Your task to perform on an android device: check battery use Image 0: 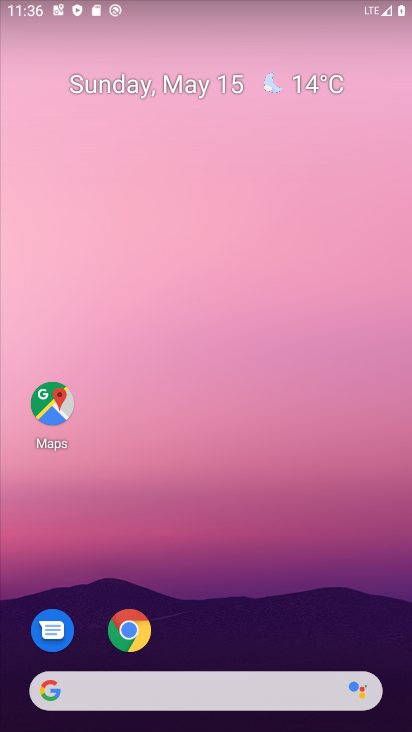
Step 0: press home button
Your task to perform on an android device: check battery use Image 1: 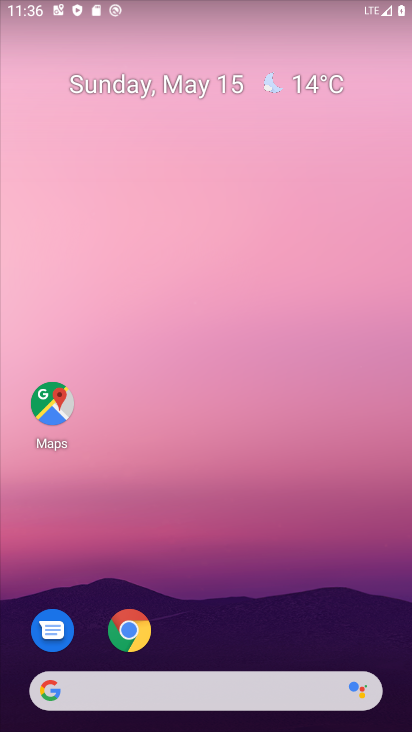
Step 1: drag from (85, 538) to (317, 148)
Your task to perform on an android device: check battery use Image 2: 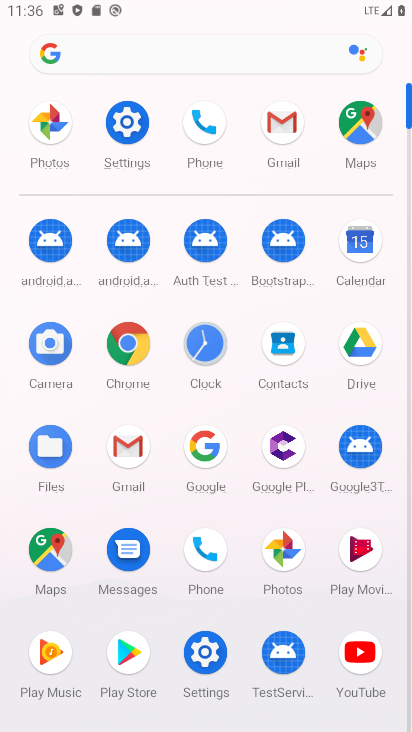
Step 2: click (127, 112)
Your task to perform on an android device: check battery use Image 3: 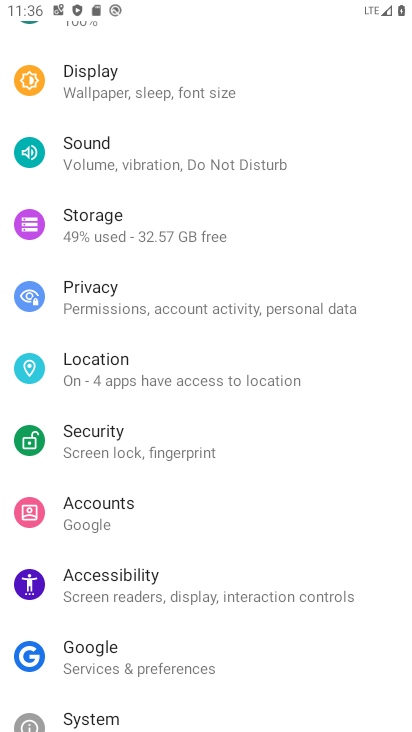
Step 3: drag from (100, 638) to (262, 195)
Your task to perform on an android device: check battery use Image 4: 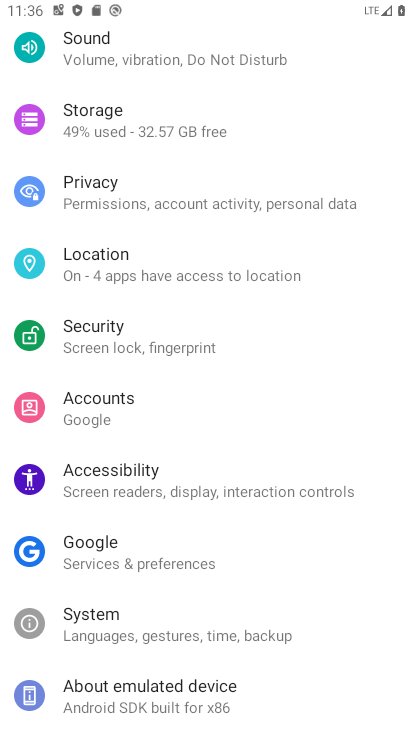
Step 4: drag from (271, 128) to (184, 635)
Your task to perform on an android device: check battery use Image 5: 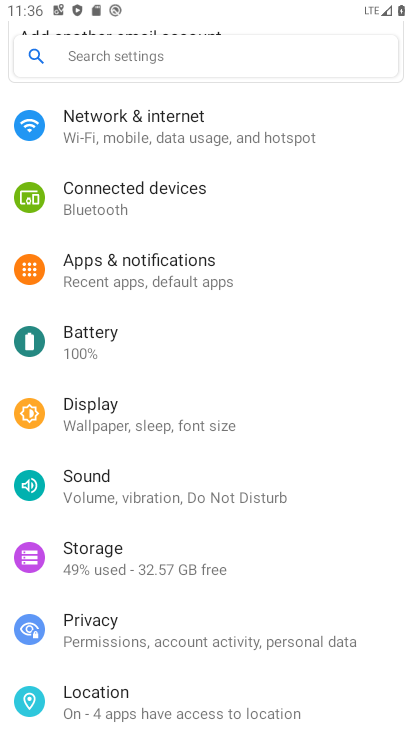
Step 5: drag from (148, 194) to (108, 635)
Your task to perform on an android device: check battery use Image 6: 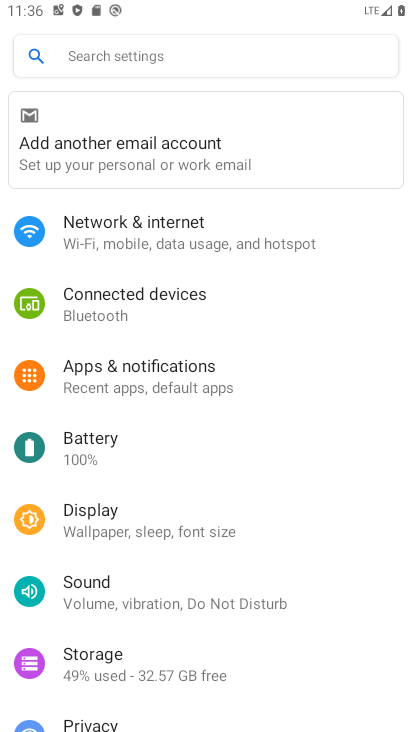
Step 6: click (88, 458)
Your task to perform on an android device: check battery use Image 7: 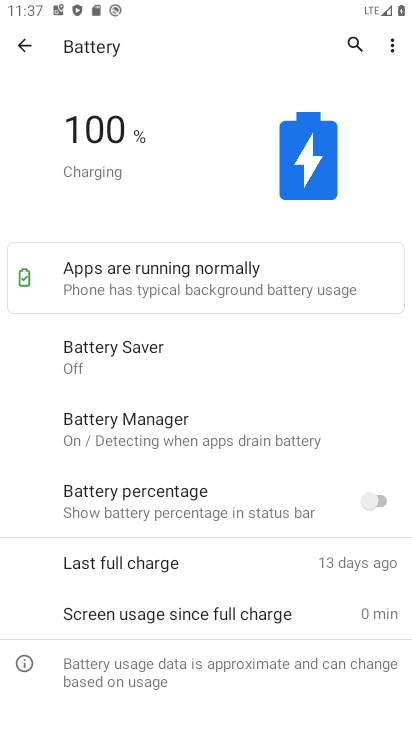
Step 7: task complete